Your task to perform on an android device: Open calendar and show me the first week of next month Image 0: 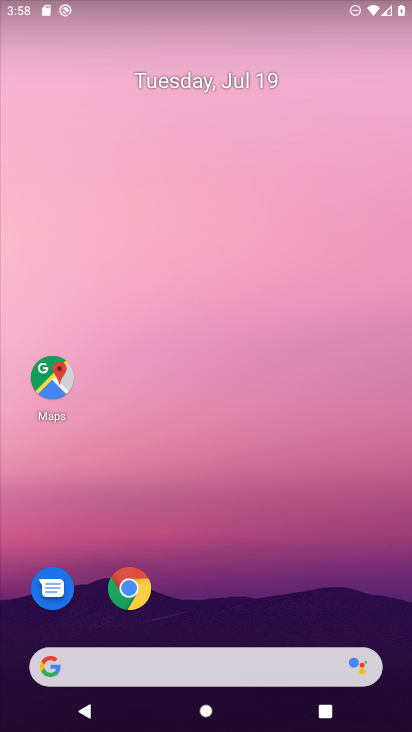
Step 0: drag from (192, 599) to (159, 5)
Your task to perform on an android device: Open calendar and show me the first week of next month Image 1: 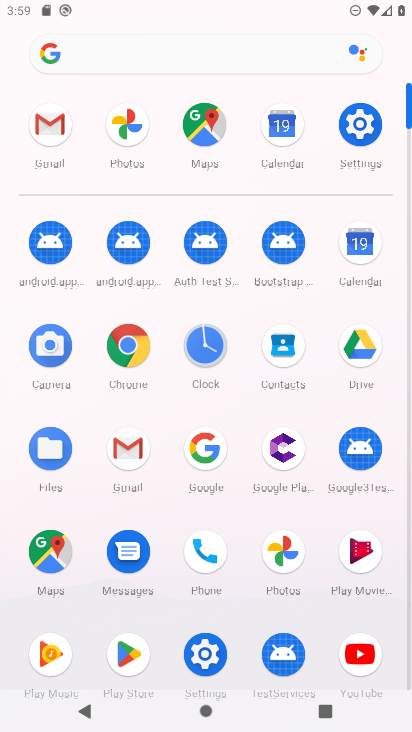
Step 1: click (351, 267)
Your task to perform on an android device: Open calendar and show me the first week of next month Image 2: 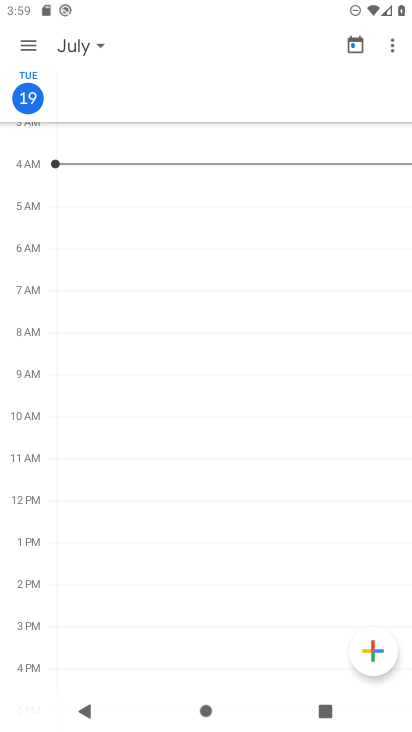
Step 2: click (80, 39)
Your task to perform on an android device: Open calendar and show me the first week of next month Image 3: 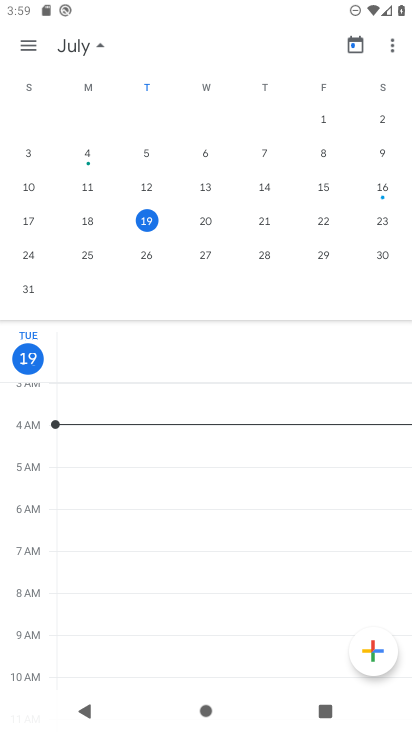
Step 3: drag from (302, 154) to (41, 157)
Your task to perform on an android device: Open calendar and show me the first week of next month Image 4: 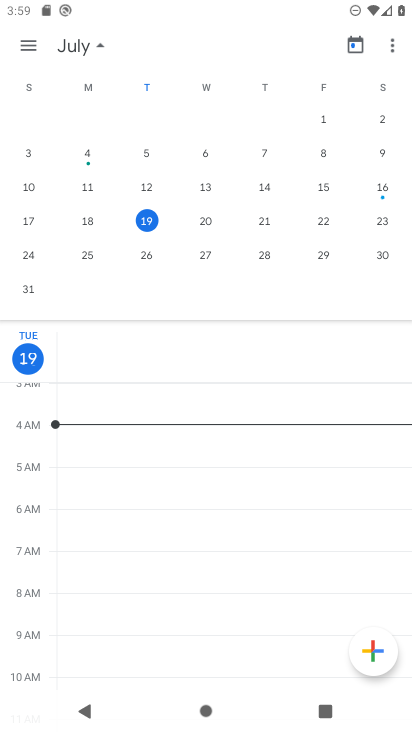
Step 4: drag from (366, 197) to (12, 199)
Your task to perform on an android device: Open calendar and show me the first week of next month Image 5: 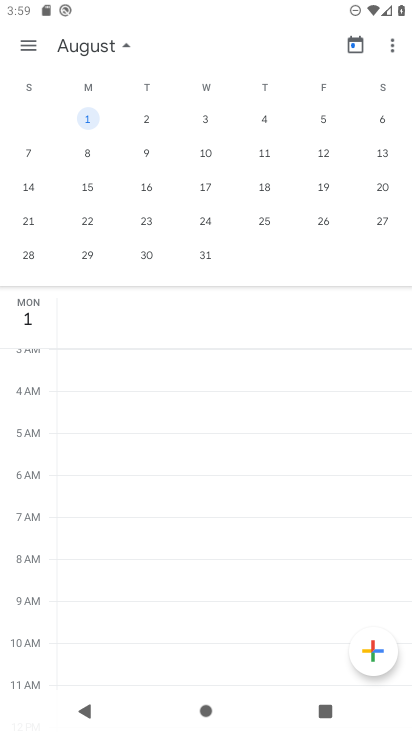
Step 5: click (23, 45)
Your task to perform on an android device: Open calendar and show me the first week of next month Image 6: 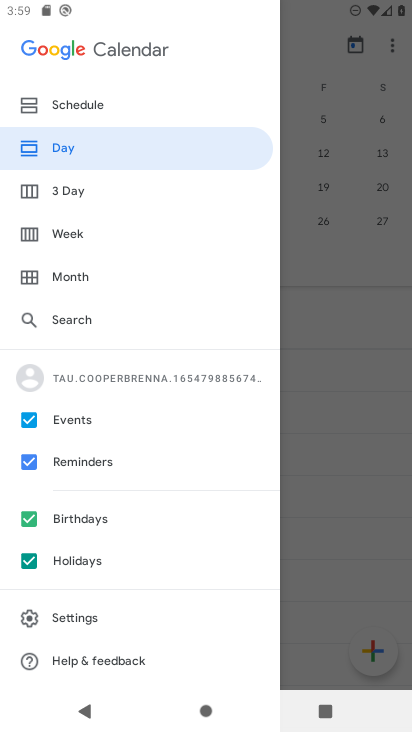
Step 6: click (55, 230)
Your task to perform on an android device: Open calendar and show me the first week of next month Image 7: 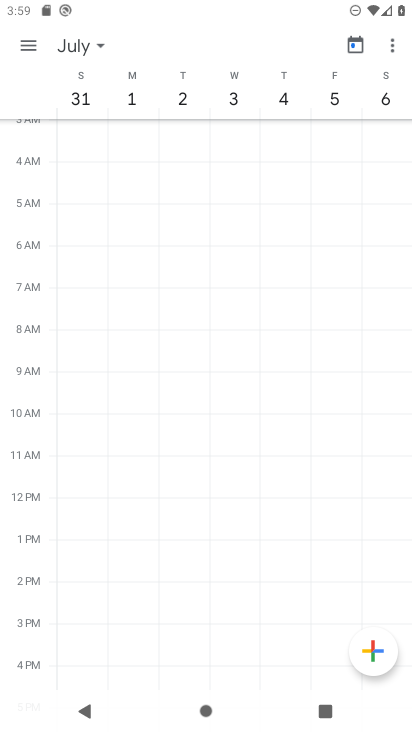
Step 7: task complete